Your task to perform on an android device: Open Google Chrome and click the shortcut for Amazon.com Image 0: 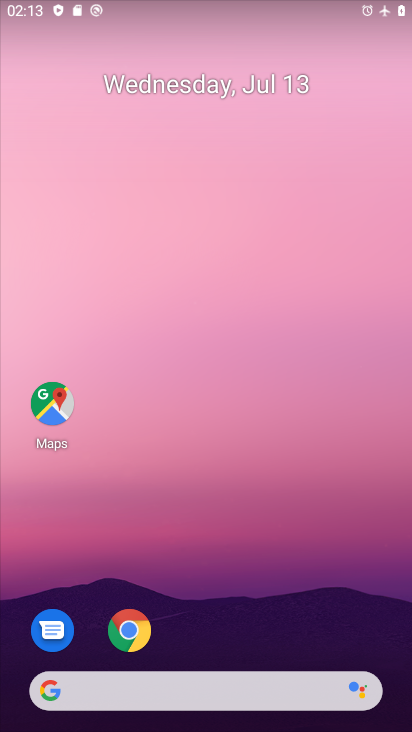
Step 0: click (136, 615)
Your task to perform on an android device: Open Google Chrome and click the shortcut for Amazon.com Image 1: 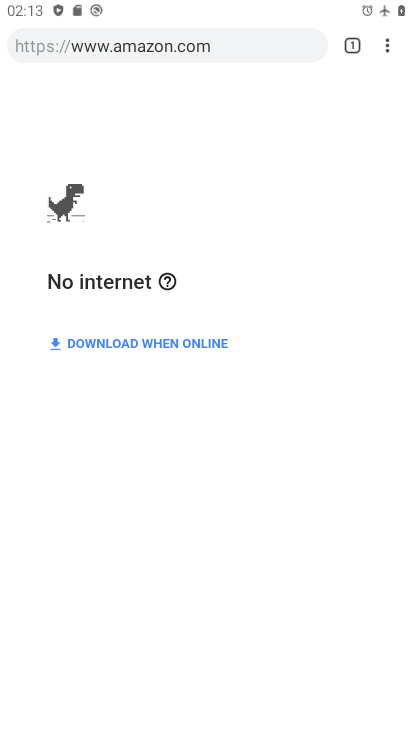
Step 1: click (348, 45)
Your task to perform on an android device: Open Google Chrome and click the shortcut for Amazon.com Image 2: 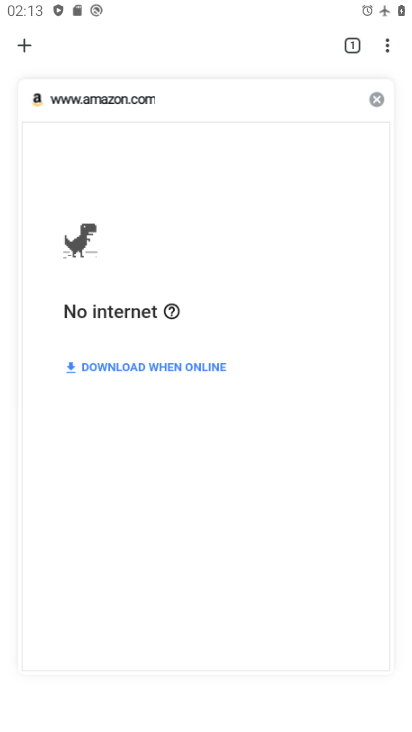
Step 2: click (21, 43)
Your task to perform on an android device: Open Google Chrome and click the shortcut for Amazon.com Image 3: 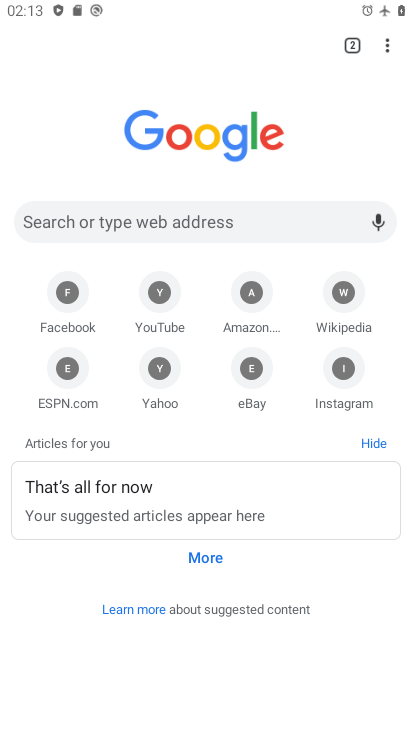
Step 3: click (266, 300)
Your task to perform on an android device: Open Google Chrome and click the shortcut for Amazon.com Image 4: 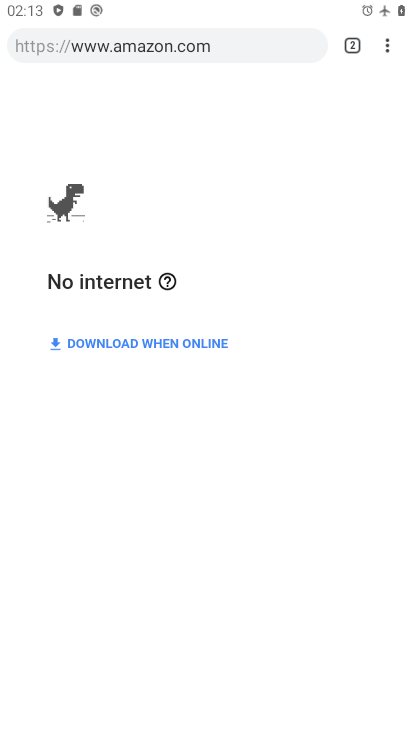
Step 4: task complete